Your task to perform on an android device: Open battery settings Image 0: 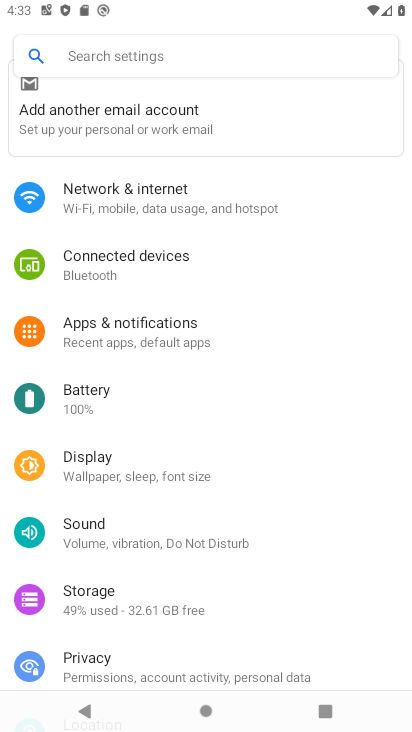
Step 0: press home button
Your task to perform on an android device: Open battery settings Image 1: 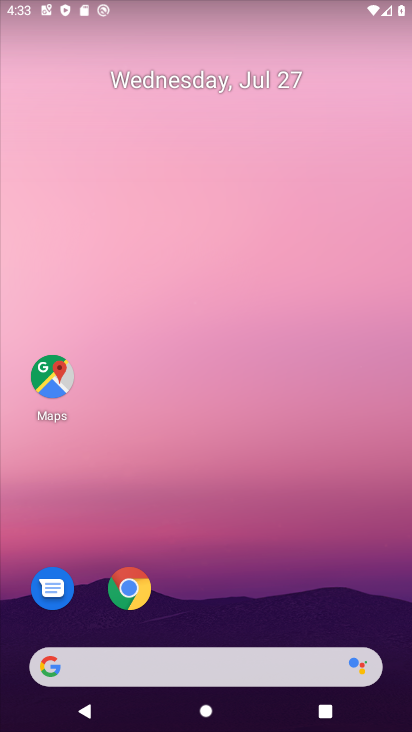
Step 1: drag from (239, 730) to (276, 172)
Your task to perform on an android device: Open battery settings Image 2: 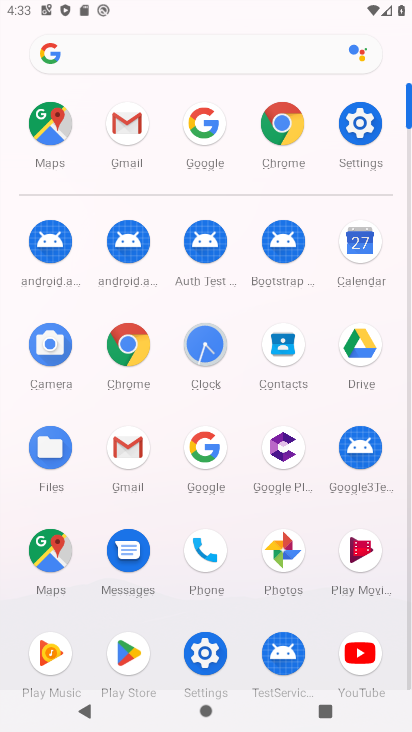
Step 2: click (357, 131)
Your task to perform on an android device: Open battery settings Image 3: 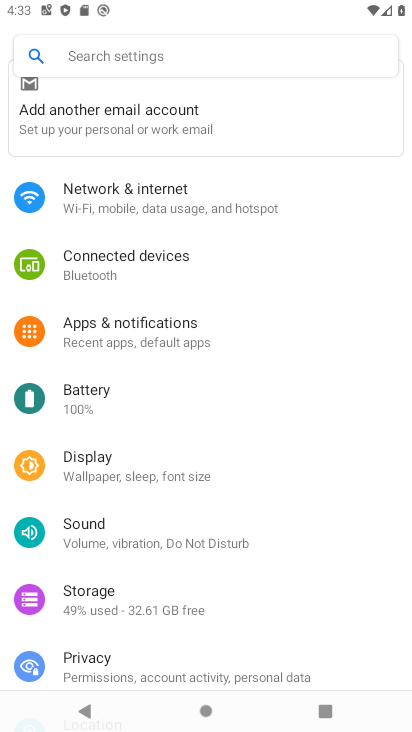
Step 3: click (89, 395)
Your task to perform on an android device: Open battery settings Image 4: 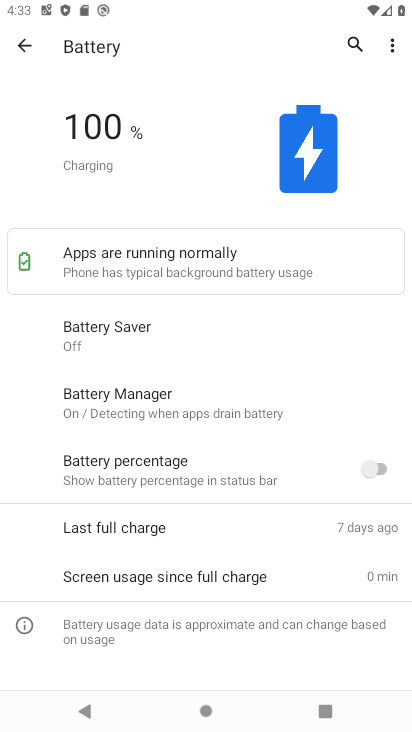
Step 4: task complete